Your task to perform on an android device: turn notification dots on Image 0: 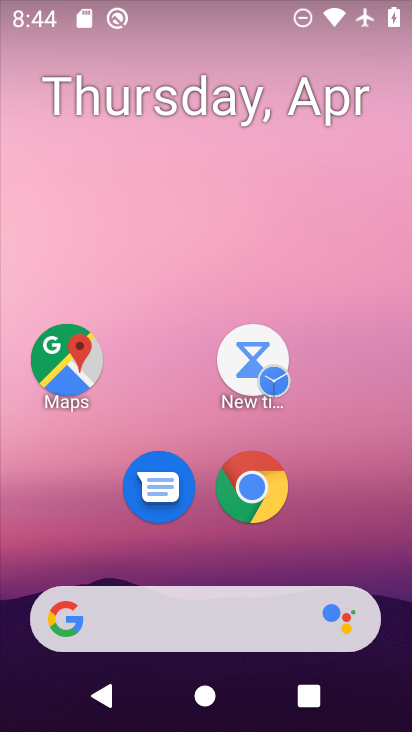
Step 0: drag from (325, 350) to (296, 114)
Your task to perform on an android device: turn notification dots on Image 1: 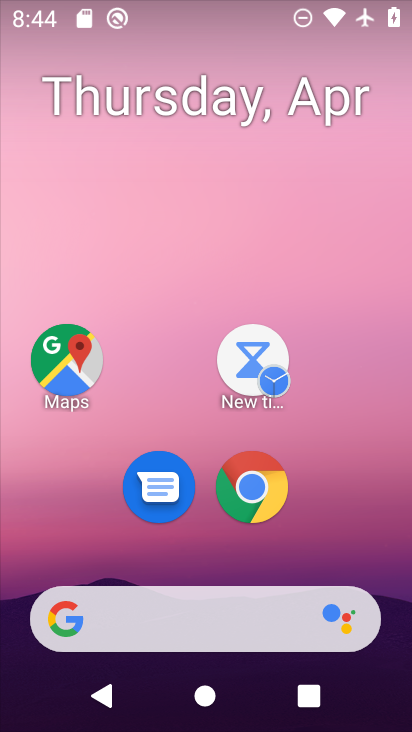
Step 1: drag from (335, 479) to (253, 52)
Your task to perform on an android device: turn notification dots on Image 2: 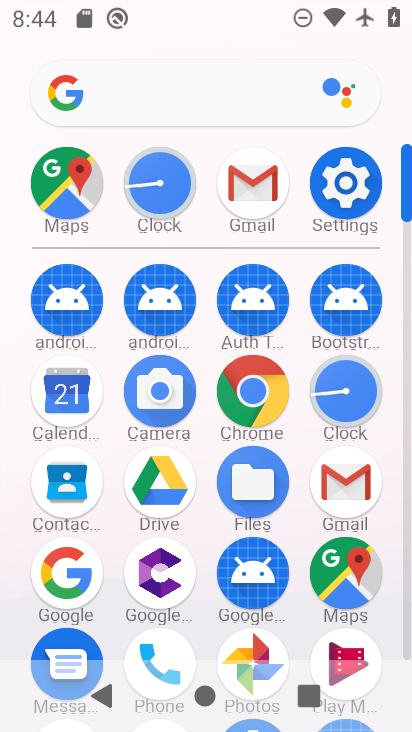
Step 2: click (350, 192)
Your task to perform on an android device: turn notification dots on Image 3: 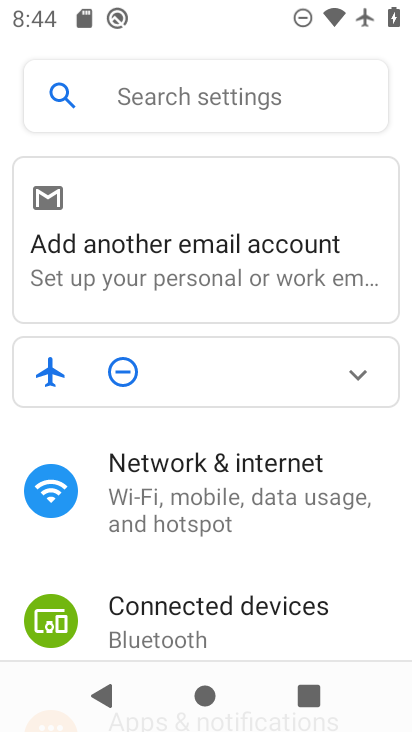
Step 3: drag from (207, 587) to (163, 212)
Your task to perform on an android device: turn notification dots on Image 4: 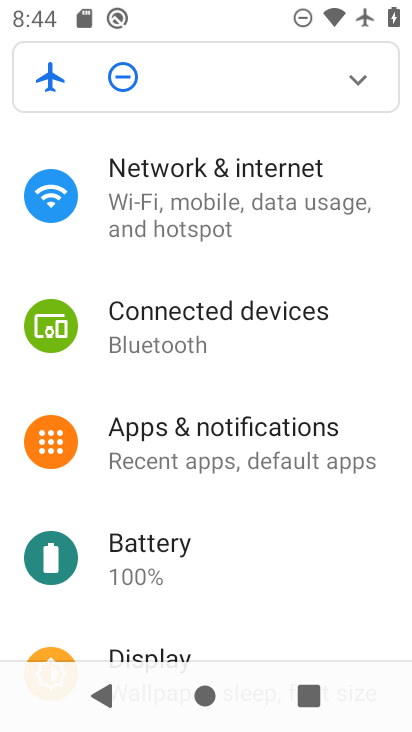
Step 4: click (144, 445)
Your task to perform on an android device: turn notification dots on Image 5: 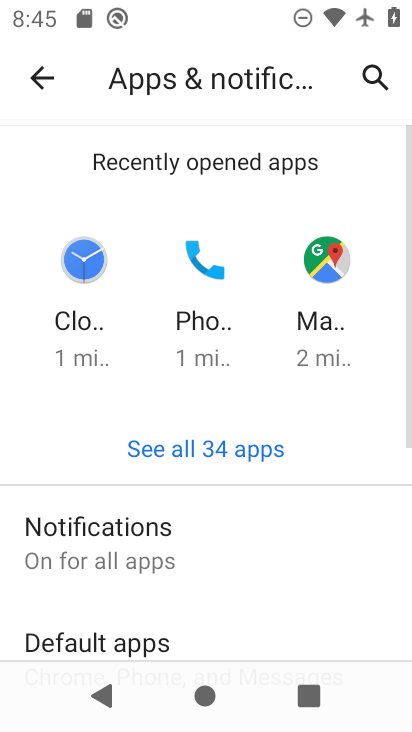
Step 5: drag from (185, 612) to (171, 369)
Your task to perform on an android device: turn notification dots on Image 6: 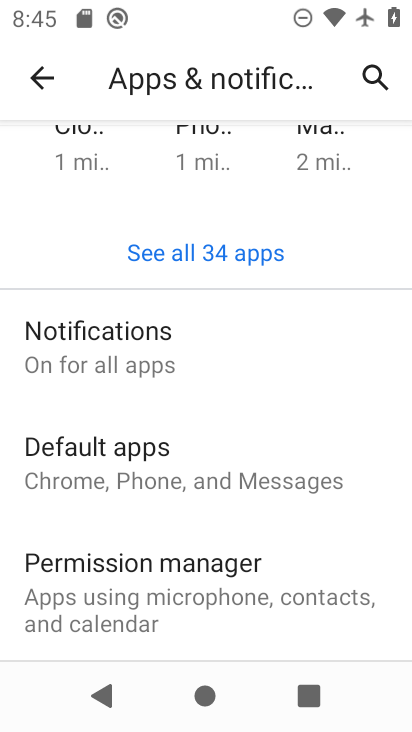
Step 6: click (118, 364)
Your task to perform on an android device: turn notification dots on Image 7: 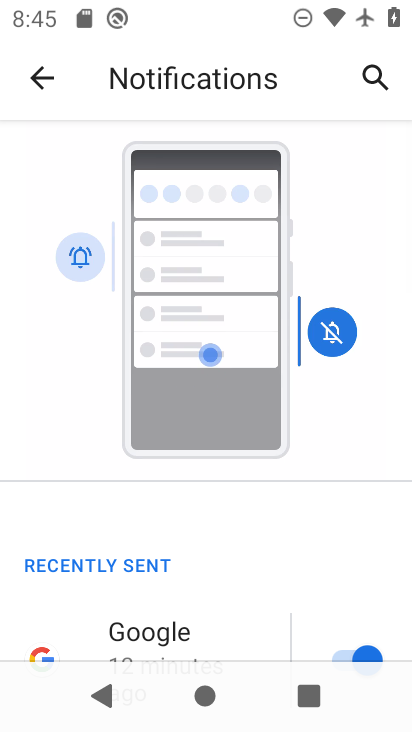
Step 7: drag from (167, 561) to (161, 233)
Your task to perform on an android device: turn notification dots on Image 8: 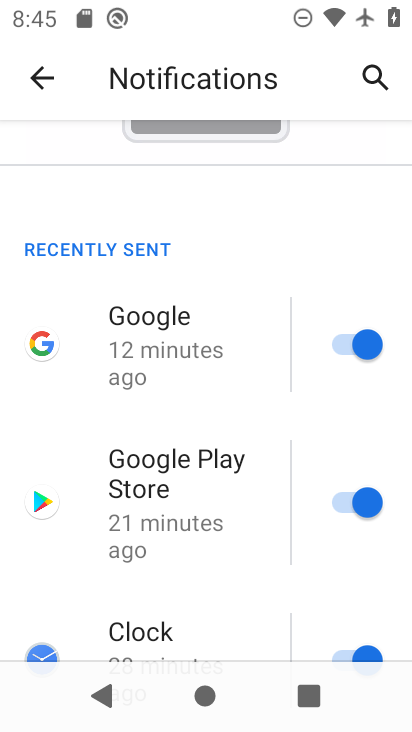
Step 8: drag from (139, 463) to (123, 196)
Your task to perform on an android device: turn notification dots on Image 9: 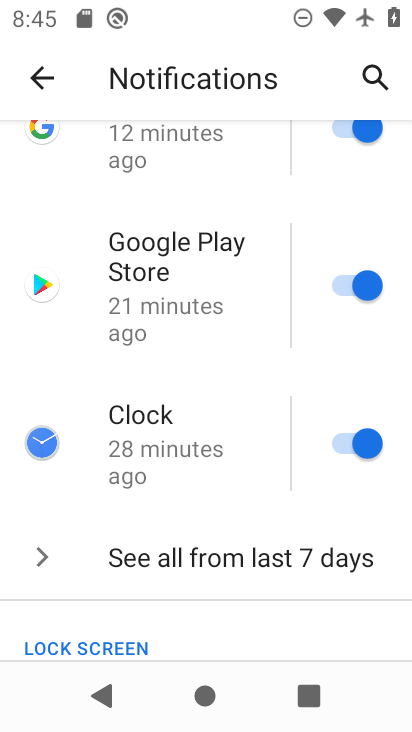
Step 9: drag from (117, 431) to (114, 171)
Your task to perform on an android device: turn notification dots on Image 10: 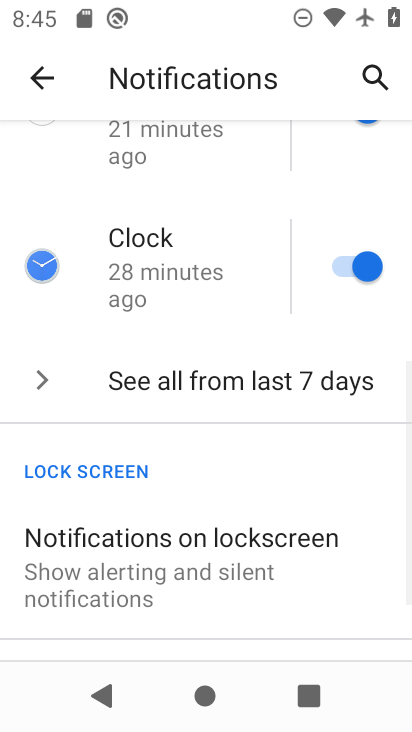
Step 10: drag from (113, 535) to (111, 177)
Your task to perform on an android device: turn notification dots on Image 11: 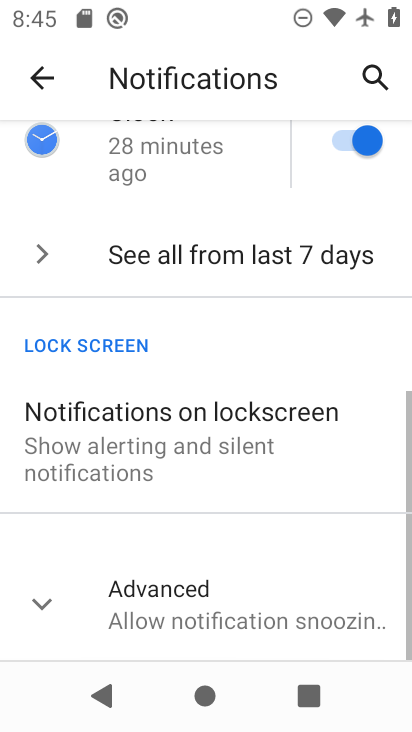
Step 11: click (195, 616)
Your task to perform on an android device: turn notification dots on Image 12: 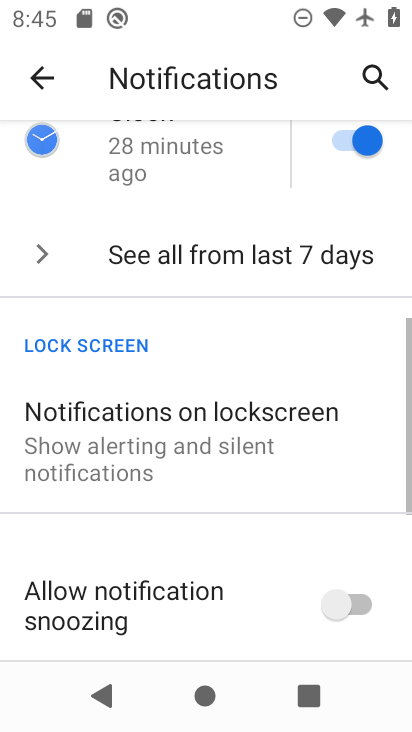
Step 12: task complete